Your task to perform on an android device: Open internet settings Image 0: 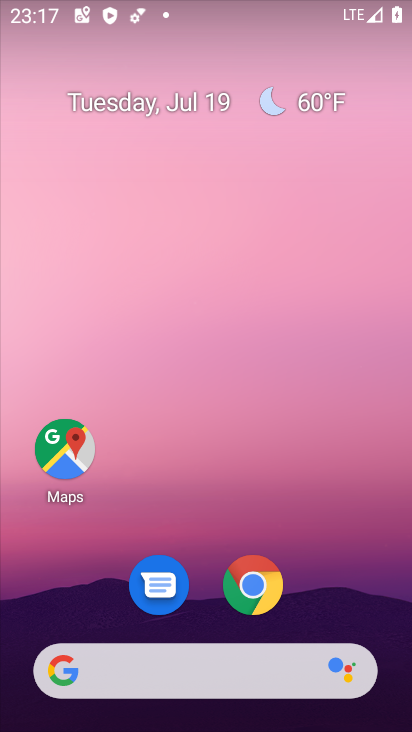
Step 0: drag from (326, 574) to (280, 43)
Your task to perform on an android device: Open internet settings Image 1: 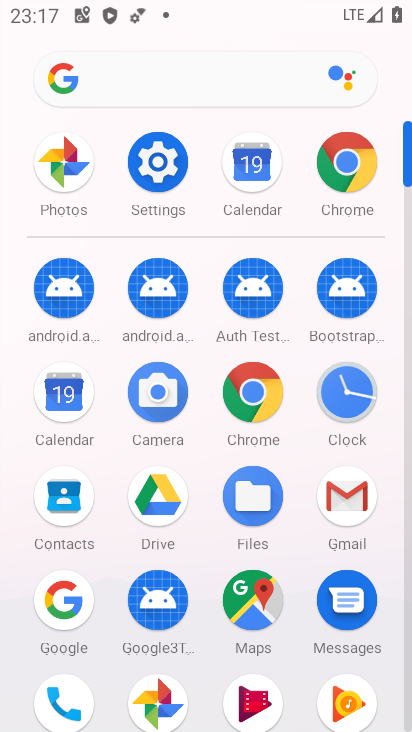
Step 1: click (162, 163)
Your task to perform on an android device: Open internet settings Image 2: 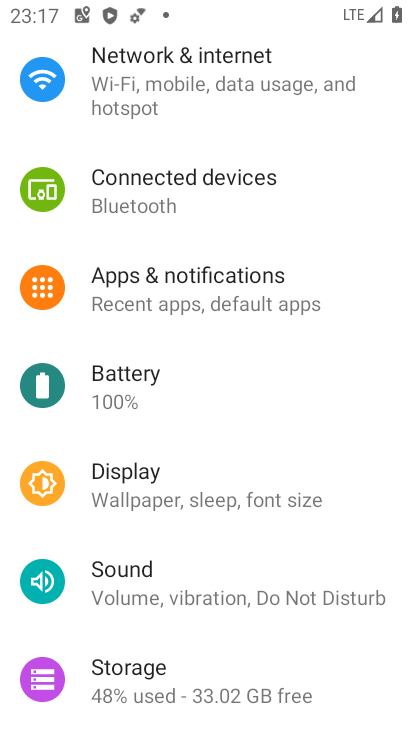
Step 2: drag from (258, 231) to (300, 571)
Your task to perform on an android device: Open internet settings Image 3: 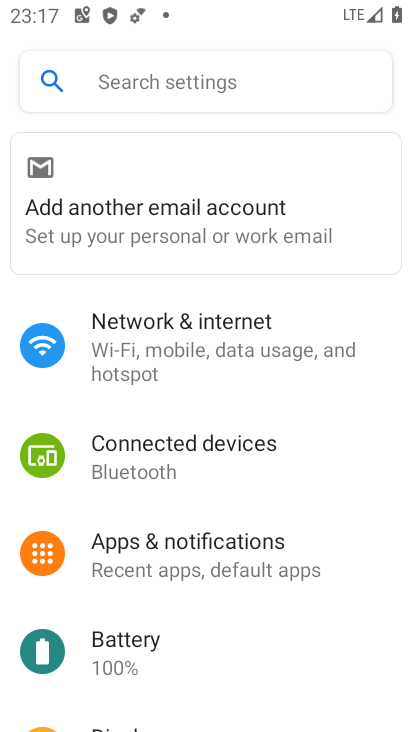
Step 3: click (254, 348)
Your task to perform on an android device: Open internet settings Image 4: 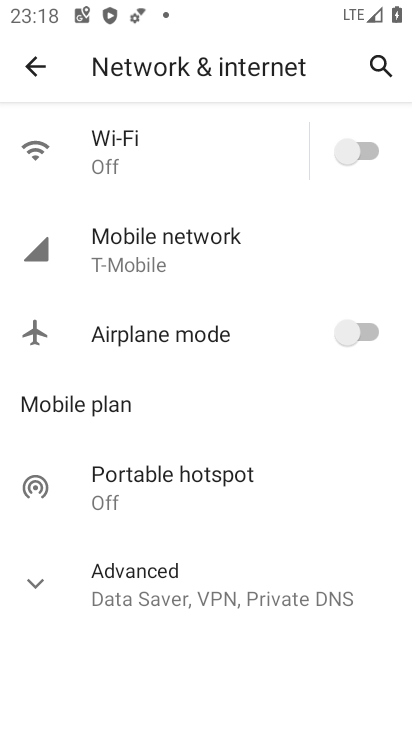
Step 4: task complete